Your task to perform on an android device: star an email in the gmail app Image 0: 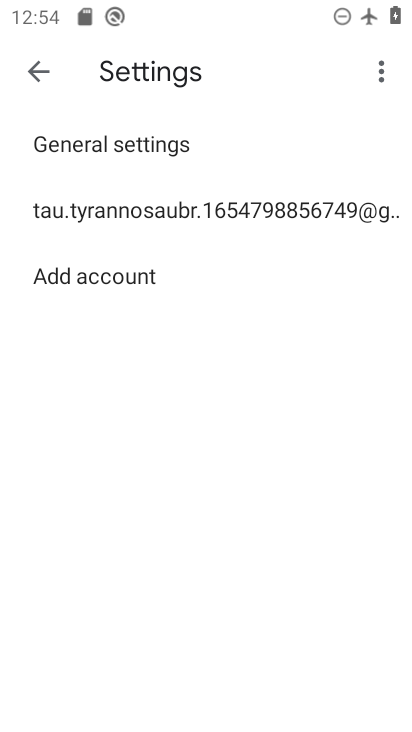
Step 0: press home button
Your task to perform on an android device: star an email in the gmail app Image 1: 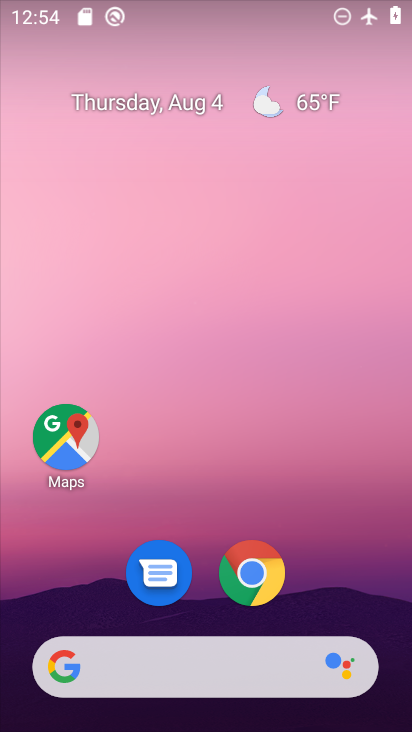
Step 1: drag from (345, 520) to (318, 33)
Your task to perform on an android device: star an email in the gmail app Image 2: 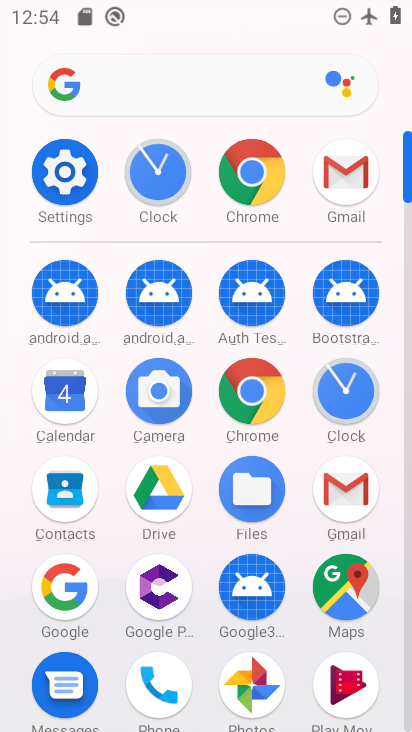
Step 2: click (344, 173)
Your task to perform on an android device: star an email in the gmail app Image 3: 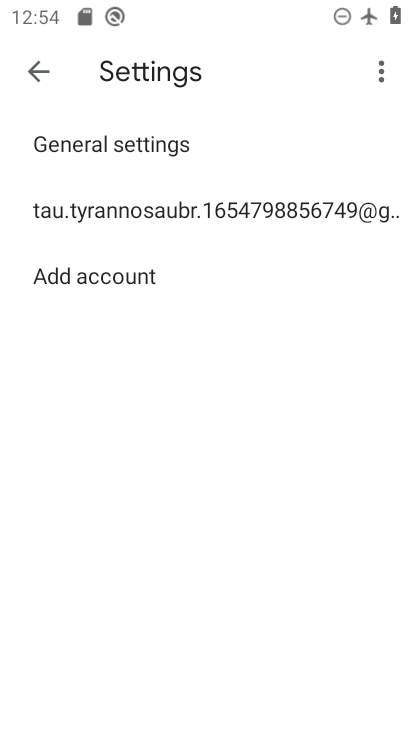
Step 3: press back button
Your task to perform on an android device: star an email in the gmail app Image 4: 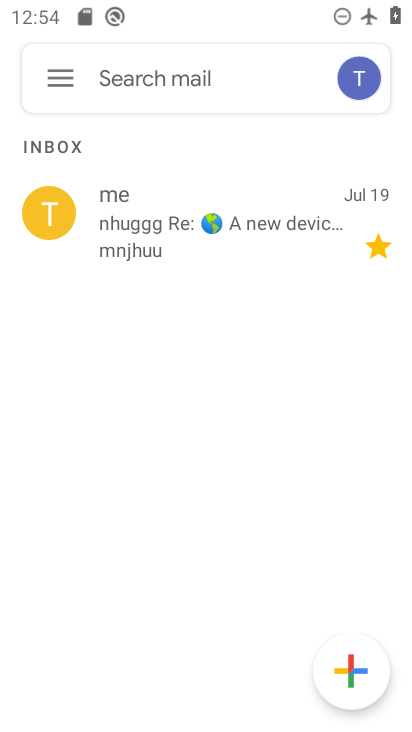
Step 4: click (52, 76)
Your task to perform on an android device: star an email in the gmail app Image 5: 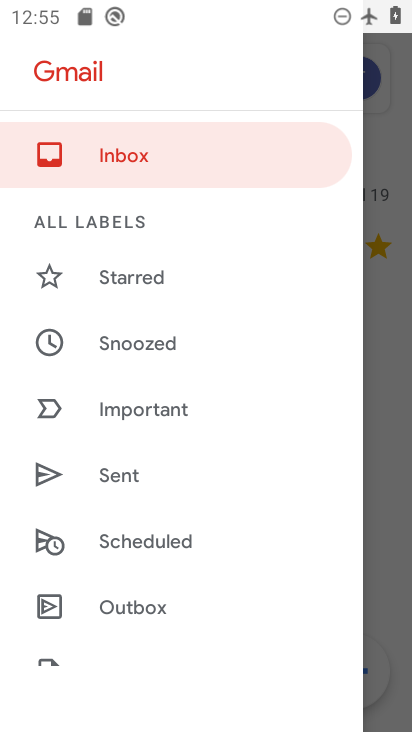
Step 5: drag from (195, 600) to (258, 234)
Your task to perform on an android device: star an email in the gmail app Image 6: 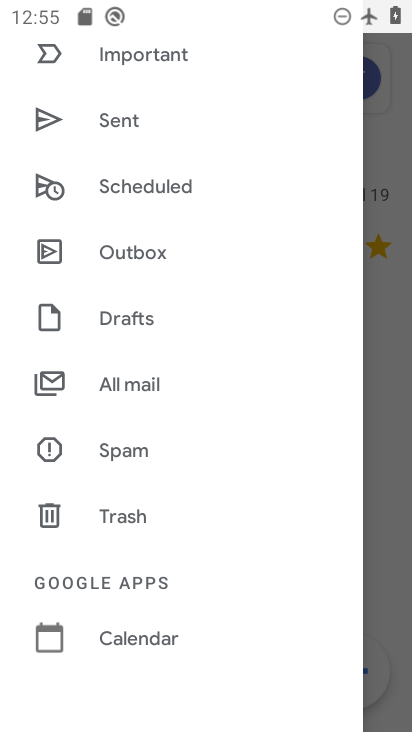
Step 6: click (154, 391)
Your task to perform on an android device: star an email in the gmail app Image 7: 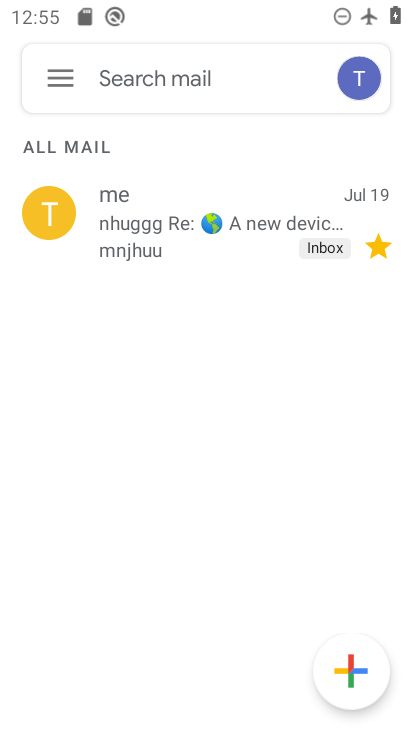
Step 7: task complete